Your task to perform on an android device: Open eBay Image 0: 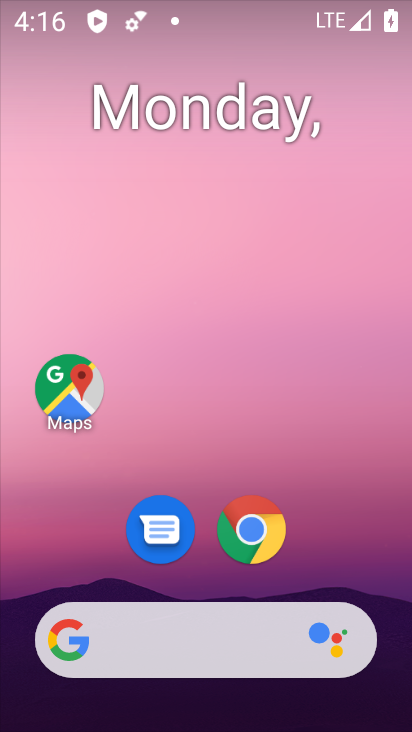
Step 0: click (251, 523)
Your task to perform on an android device: Open eBay Image 1: 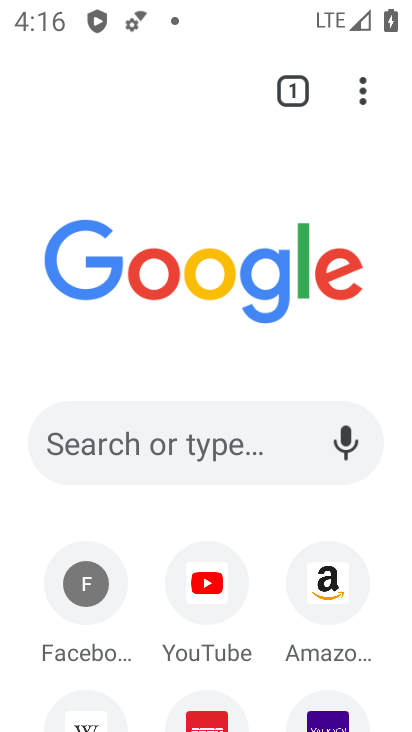
Step 1: click (146, 445)
Your task to perform on an android device: Open eBay Image 2: 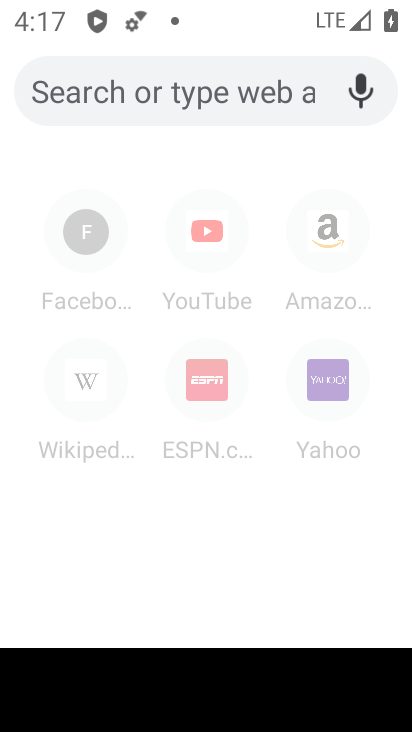
Step 2: type "ebay"
Your task to perform on an android device: Open eBay Image 3: 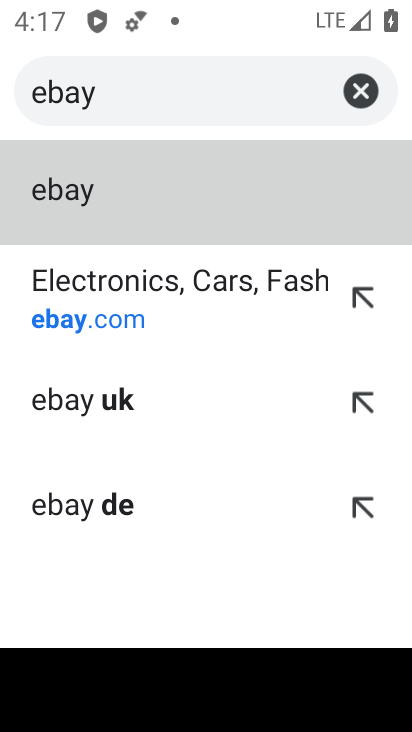
Step 3: click (37, 190)
Your task to perform on an android device: Open eBay Image 4: 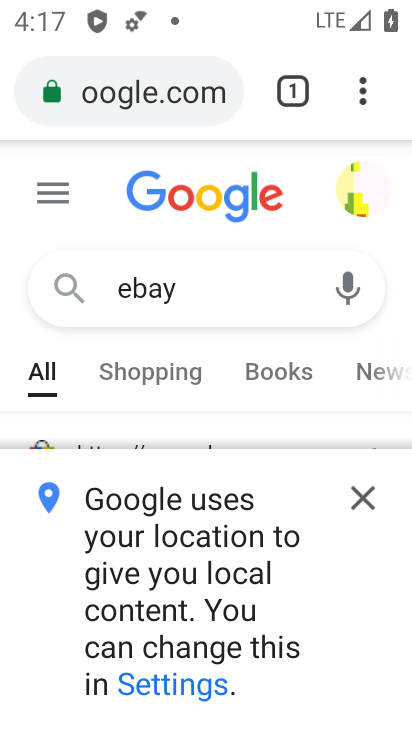
Step 4: click (368, 504)
Your task to perform on an android device: Open eBay Image 5: 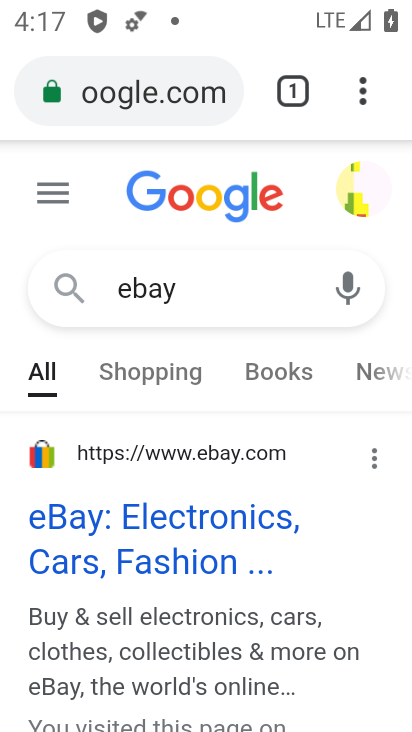
Step 5: click (83, 544)
Your task to perform on an android device: Open eBay Image 6: 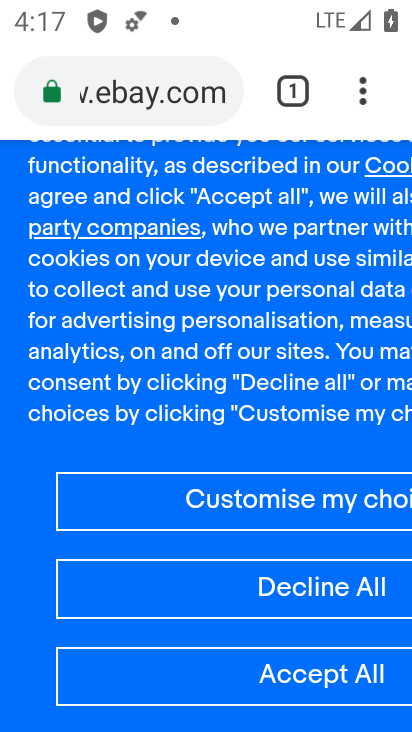
Step 6: task complete